Your task to perform on an android device: Search for the best selling TV on Best Buy. Image 0: 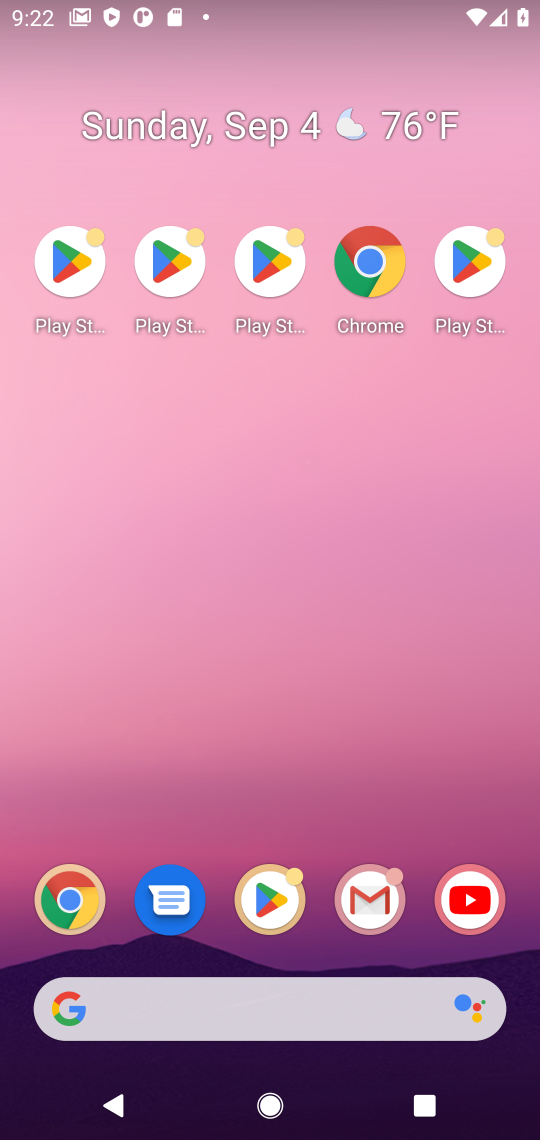
Step 0: drag from (287, 959) to (298, 125)
Your task to perform on an android device: Search for the best selling TV on Best Buy. Image 1: 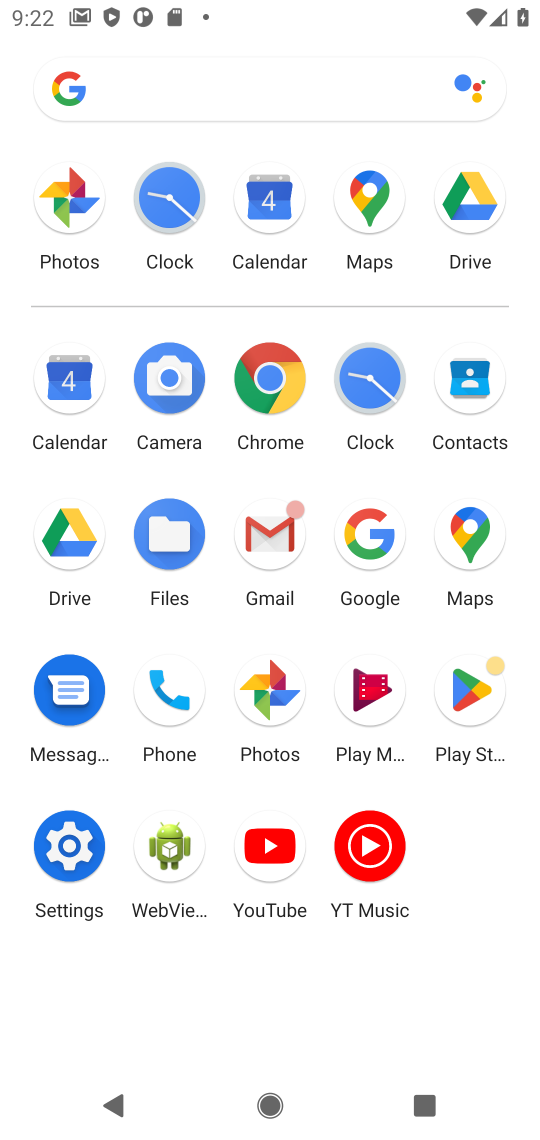
Step 1: click (274, 389)
Your task to perform on an android device: Search for the best selling TV on Best Buy. Image 2: 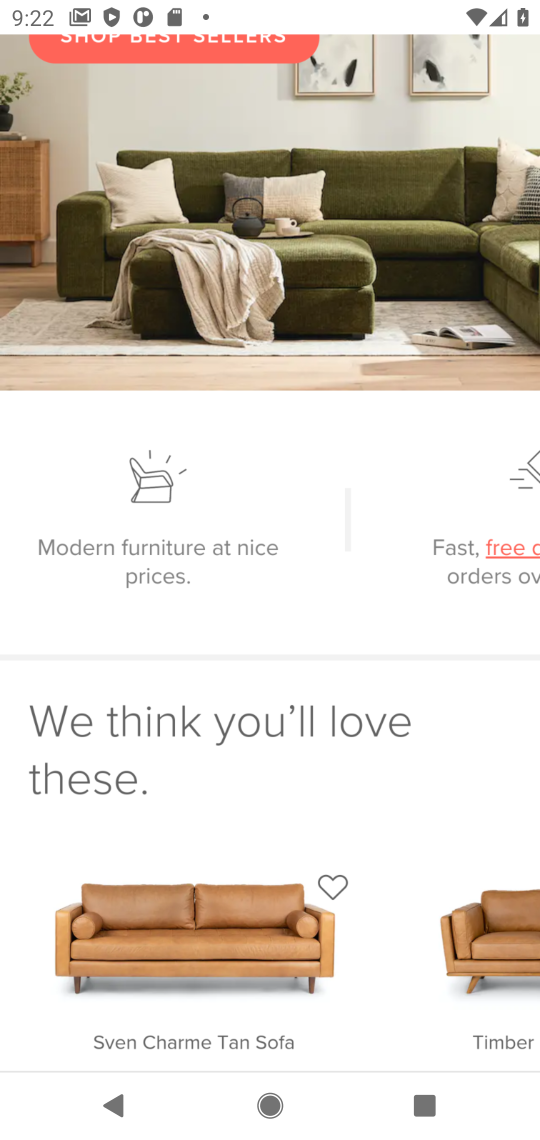
Step 2: drag from (280, 179) to (271, 637)
Your task to perform on an android device: Search for the best selling TV on Best Buy. Image 3: 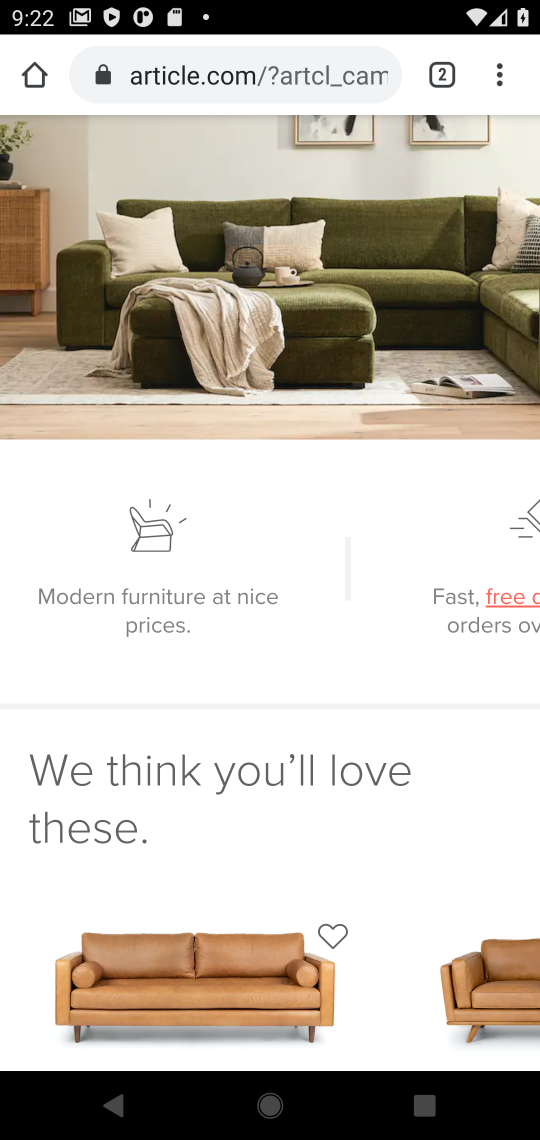
Step 3: click (432, 70)
Your task to perform on an android device: Search for the best selling TV on Best Buy. Image 4: 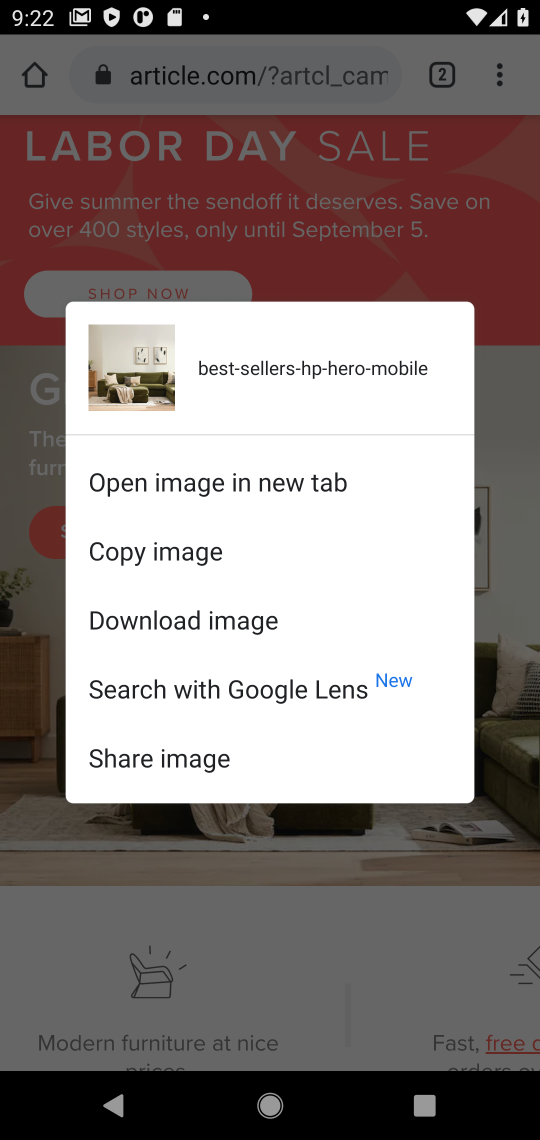
Step 4: click (430, 70)
Your task to perform on an android device: Search for the best selling TV on Best Buy. Image 5: 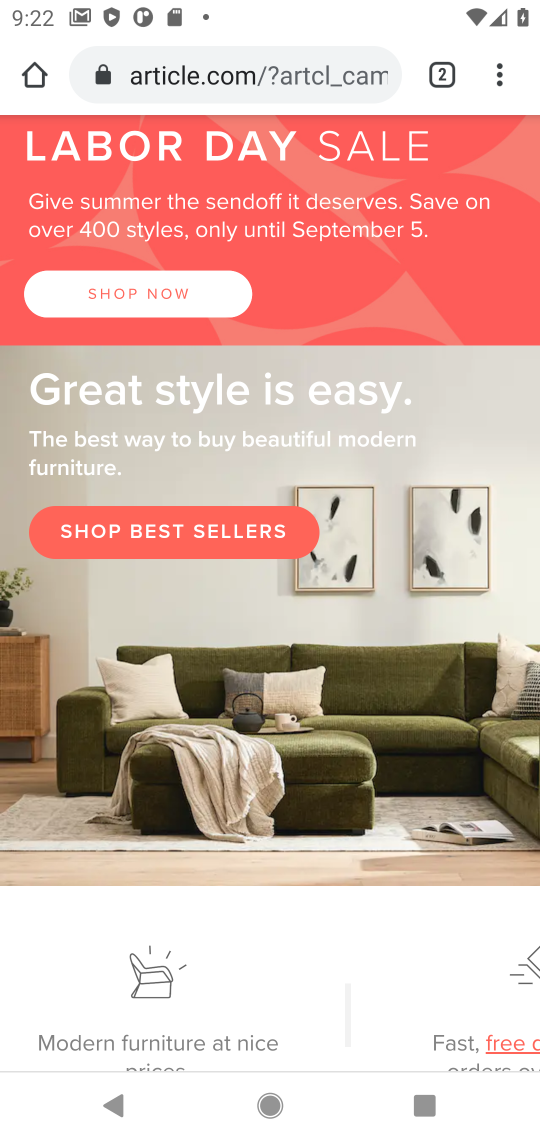
Step 5: click (430, 70)
Your task to perform on an android device: Search for the best selling TV on Best Buy. Image 6: 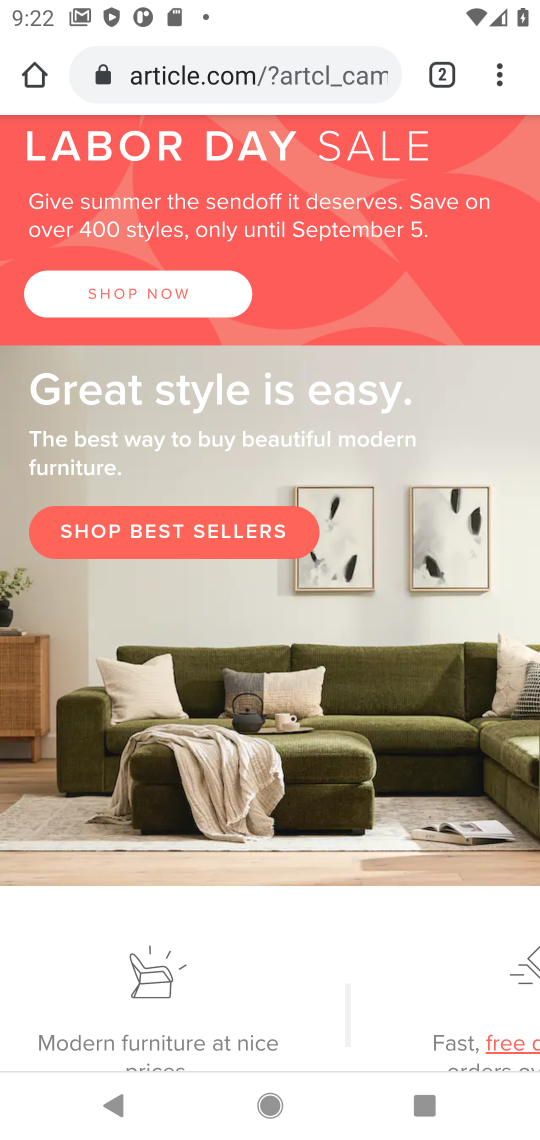
Step 6: click (427, 70)
Your task to perform on an android device: Search for the best selling TV on Best Buy. Image 7: 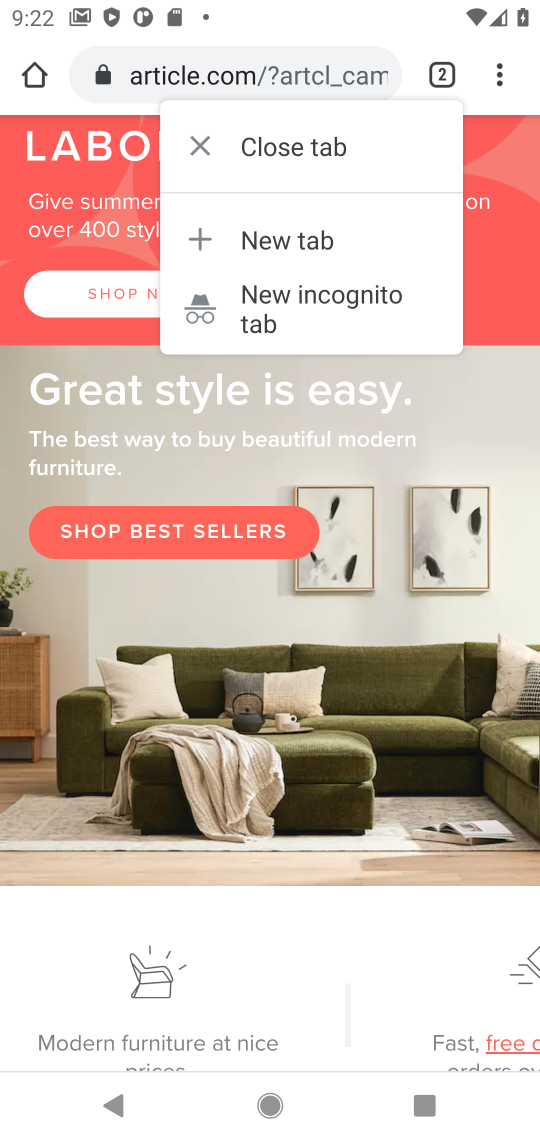
Step 7: click (240, 147)
Your task to perform on an android device: Search for the best selling TV on Best Buy. Image 8: 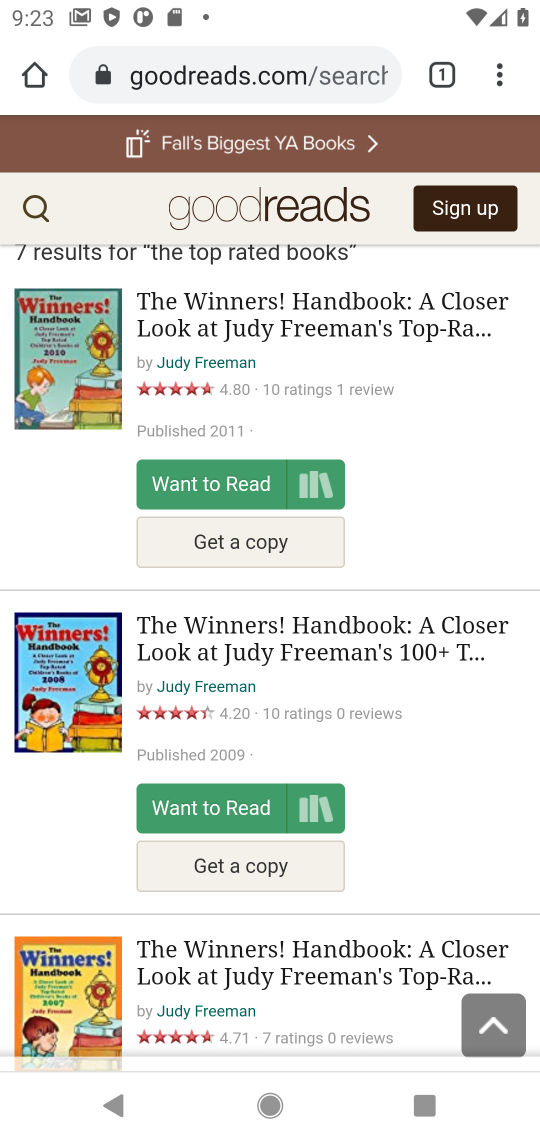
Step 8: click (437, 73)
Your task to perform on an android device: Search for the best selling TV on Best Buy. Image 9: 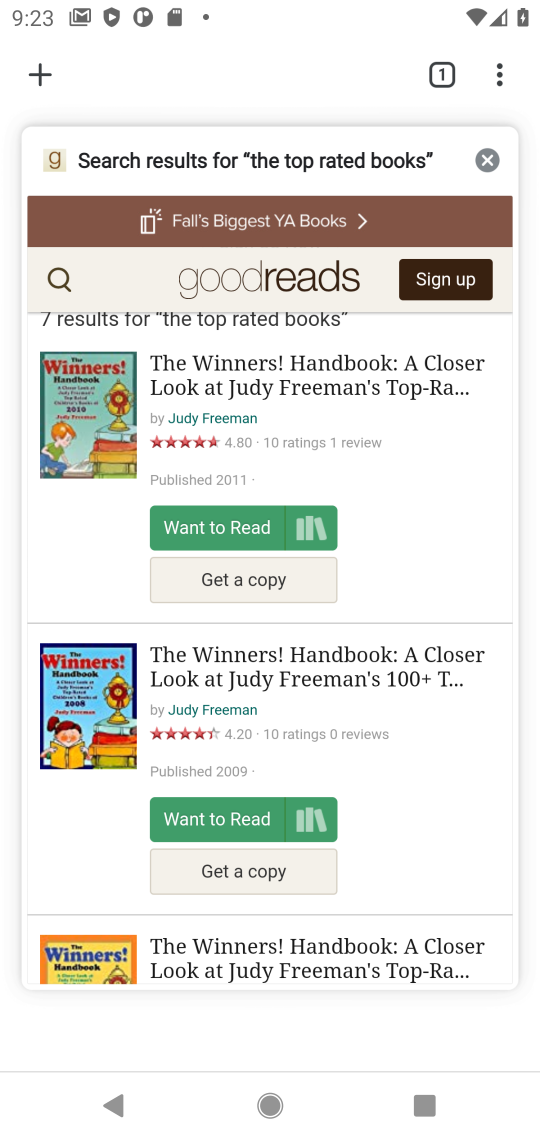
Step 9: click (44, 78)
Your task to perform on an android device: Search for the best selling TV on Best Buy. Image 10: 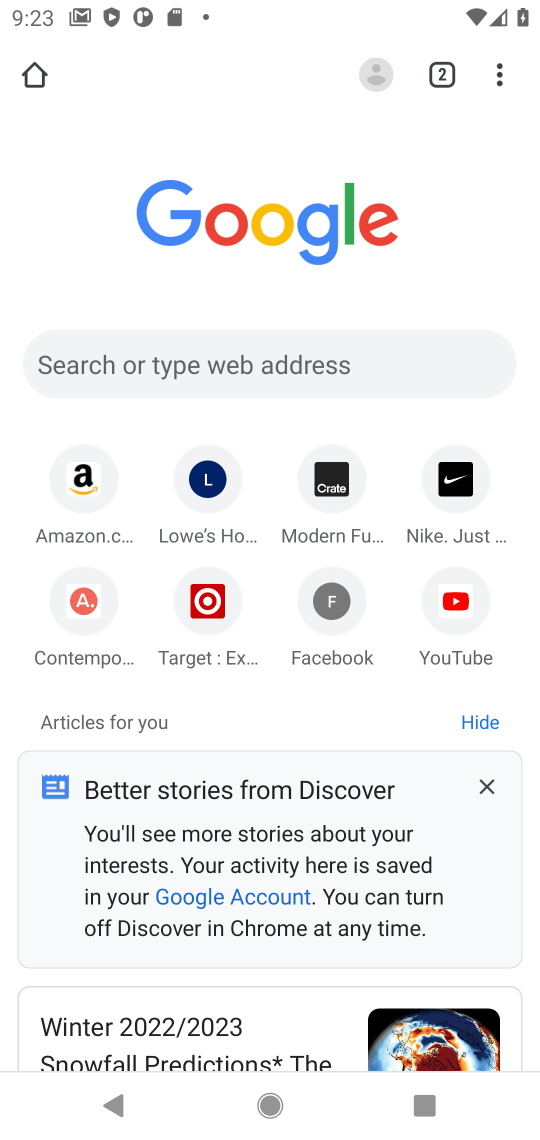
Step 10: click (285, 350)
Your task to perform on an android device: Search for the best selling TV on Best Buy. Image 11: 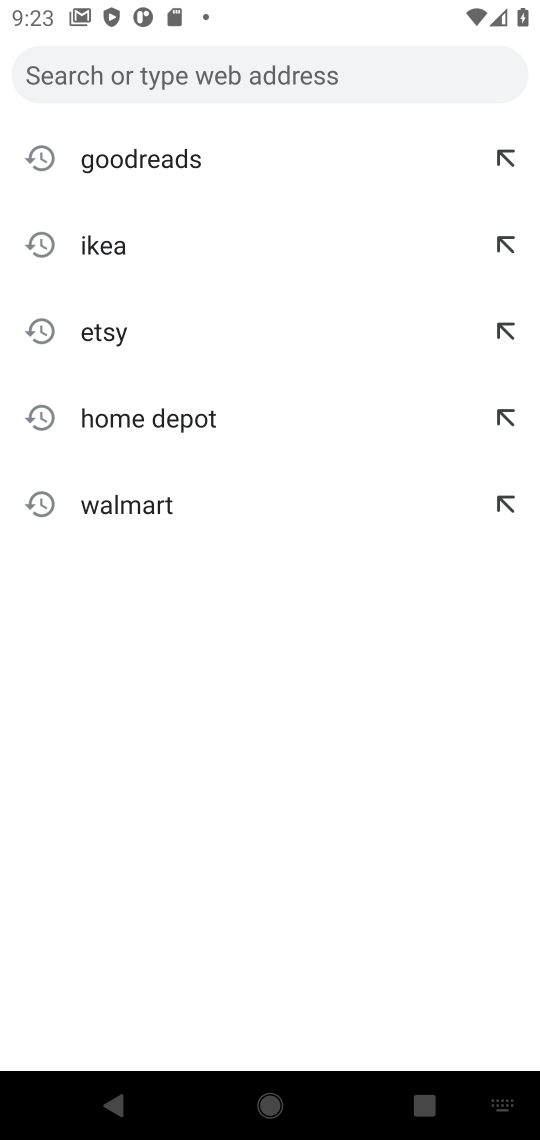
Step 11: type "the best selling TV"
Your task to perform on an android device: Search for the best selling TV on Best Buy. Image 12: 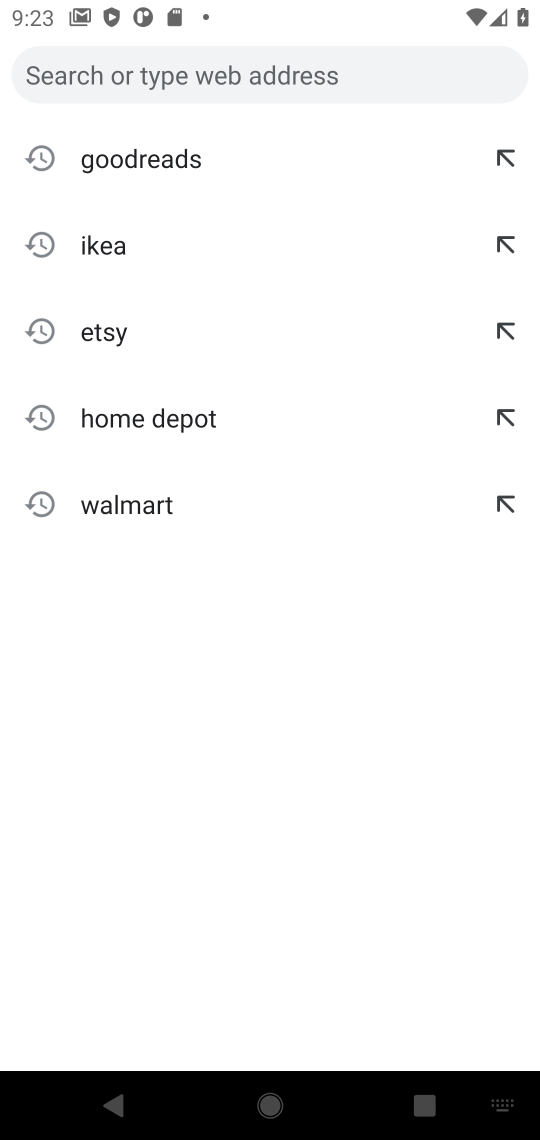
Step 12: click (197, 59)
Your task to perform on an android device: Search for the best selling TV on Best Buy. Image 13: 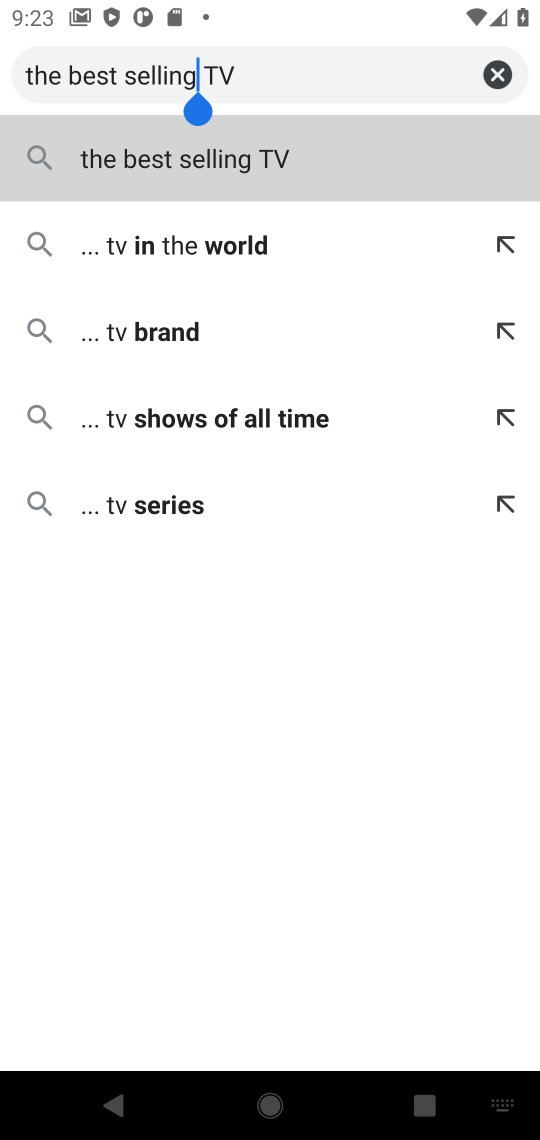
Step 13: click (180, 142)
Your task to perform on an android device: Search for the best selling TV on Best Buy. Image 14: 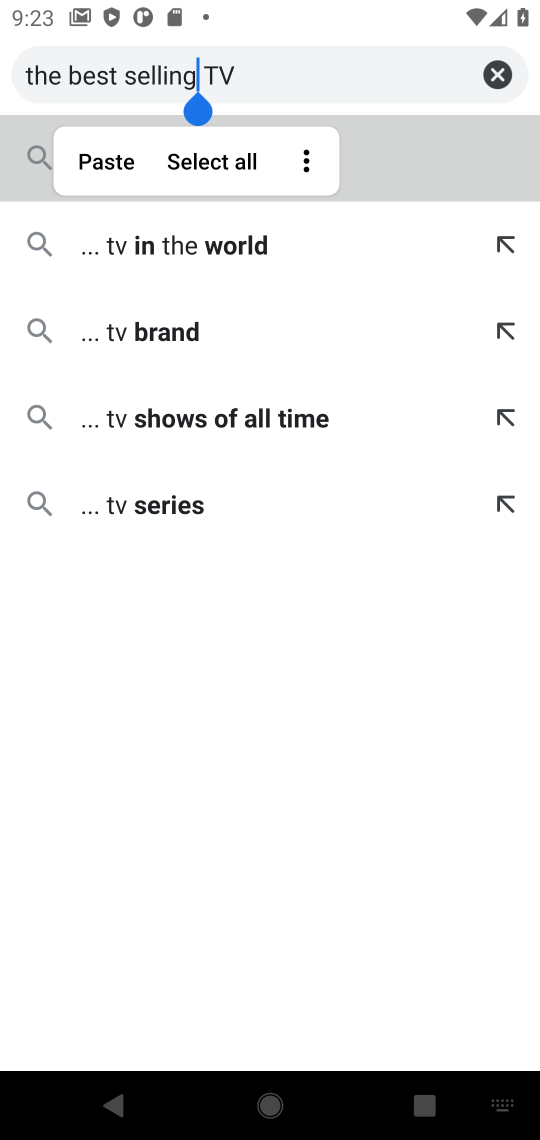
Step 14: click (422, 148)
Your task to perform on an android device: Search for the best selling TV on Best Buy. Image 15: 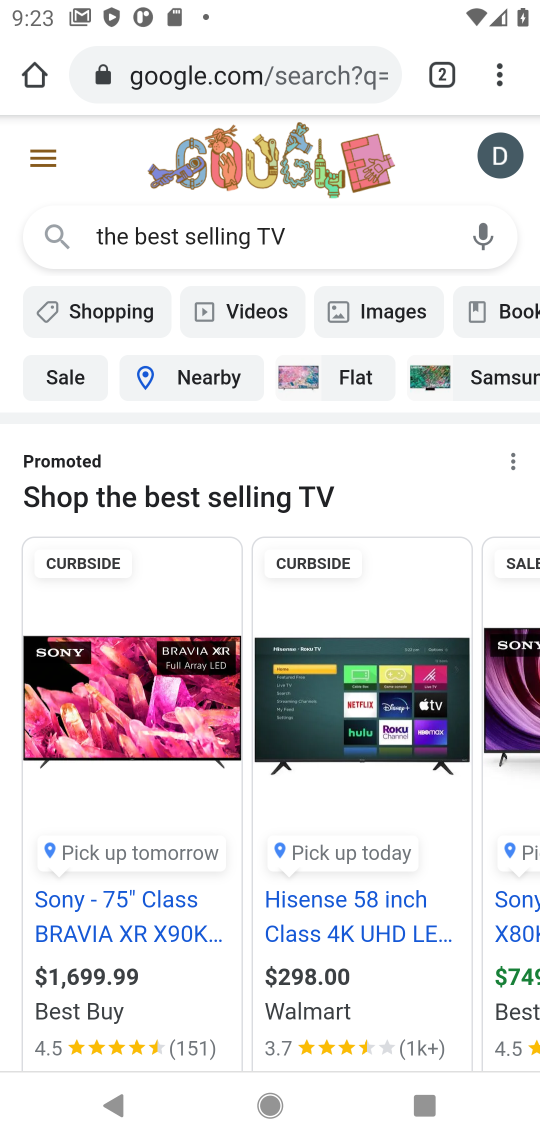
Step 15: drag from (239, 472) to (239, 171)
Your task to perform on an android device: Search for the best selling TV on Best Buy. Image 16: 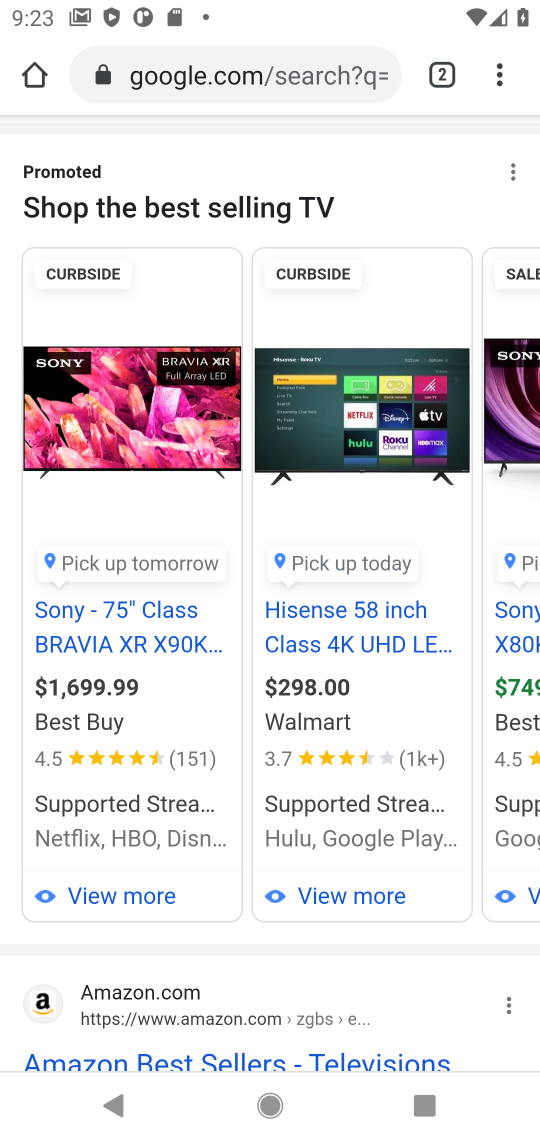
Step 16: drag from (377, 908) to (292, 243)
Your task to perform on an android device: Search for the best selling TV on Best Buy. Image 17: 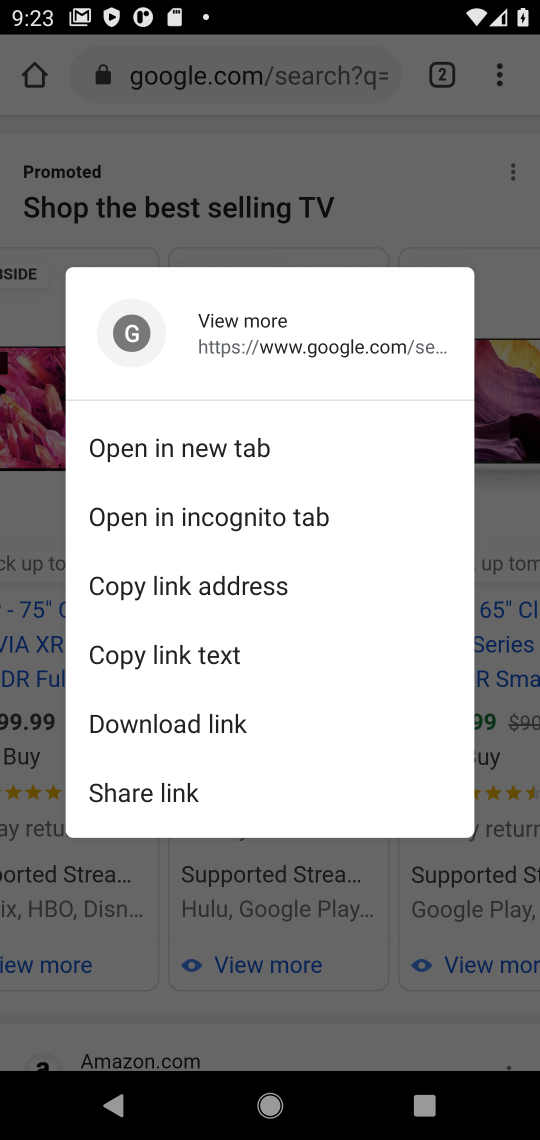
Step 17: click (396, 921)
Your task to perform on an android device: Search for the best selling TV on Best Buy. Image 18: 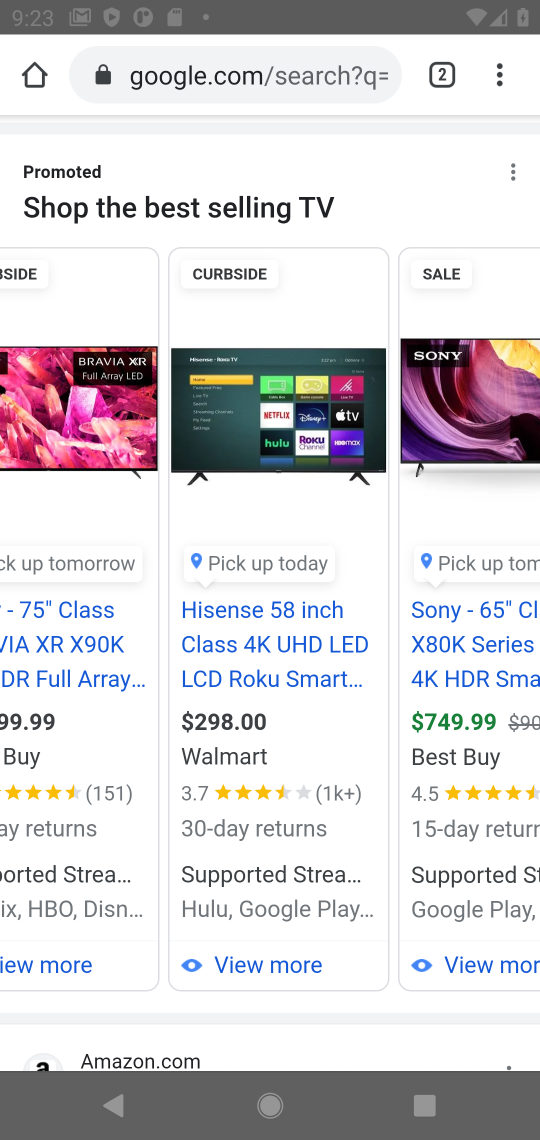
Step 18: task complete